Your task to perform on an android device: turn on sleep mode Image 0: 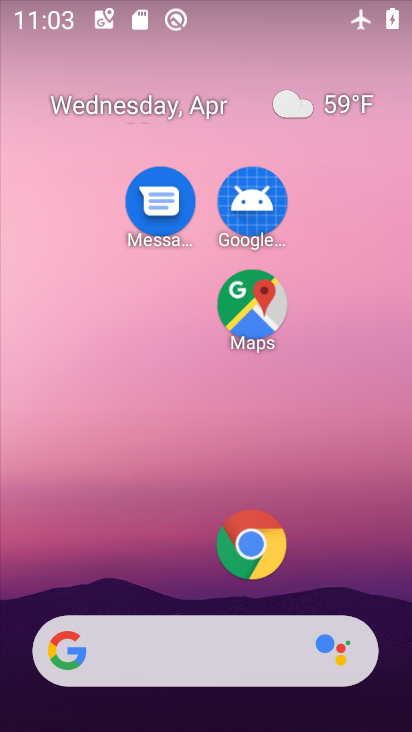
Step 0: drag from (169, 567) to (171, 136)
Your task to perform on an android device: turn on sleep mode Image 1: 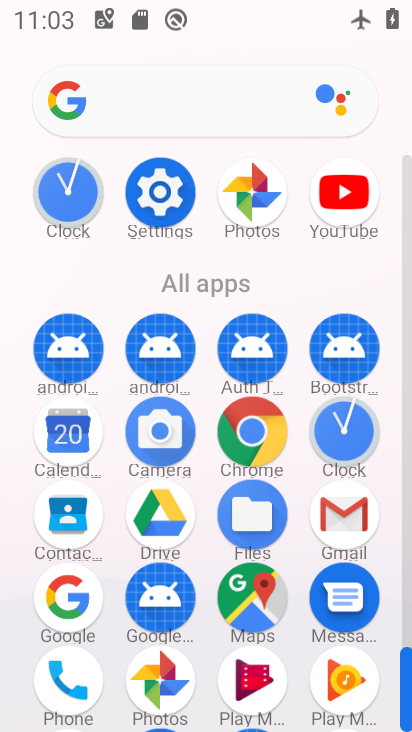
Step 1: click (179, 183)
Your task to perform on an android device: turn on sleep mode Image 2: 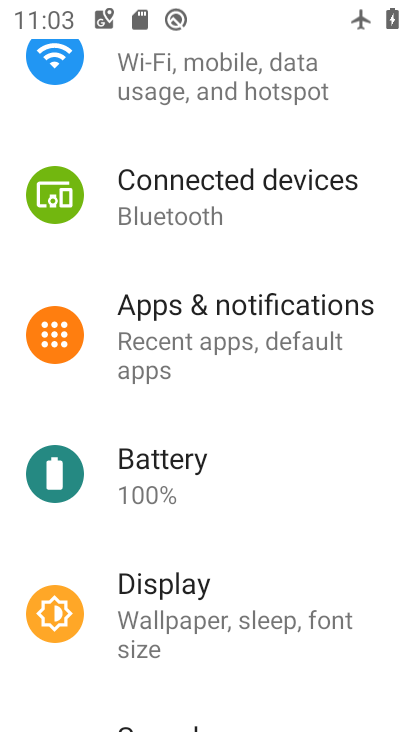
Step 2: click (201, 606)
Your task to perform on an android device: turn on sleep mode Image 3: 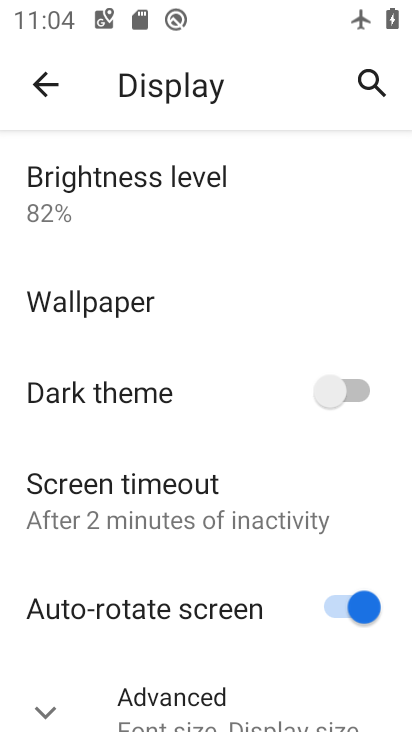
Step 3: click (152, 516)
Your task to perform on an android device: turn on sleep mode Image 4: 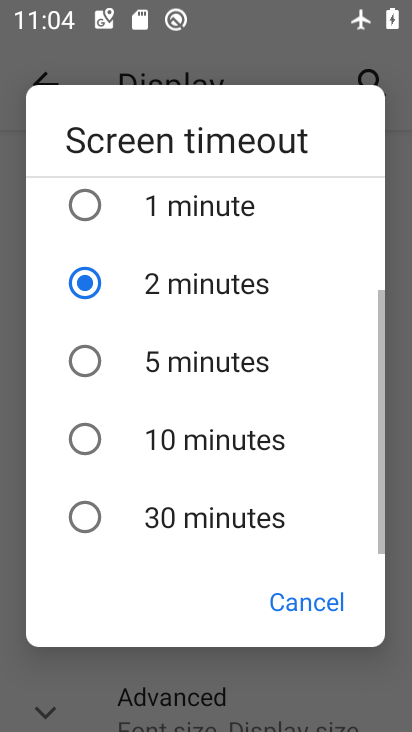
Step 4: click (201, 444)
Your task to perform on an android device: turn on sleep mode Image 5: 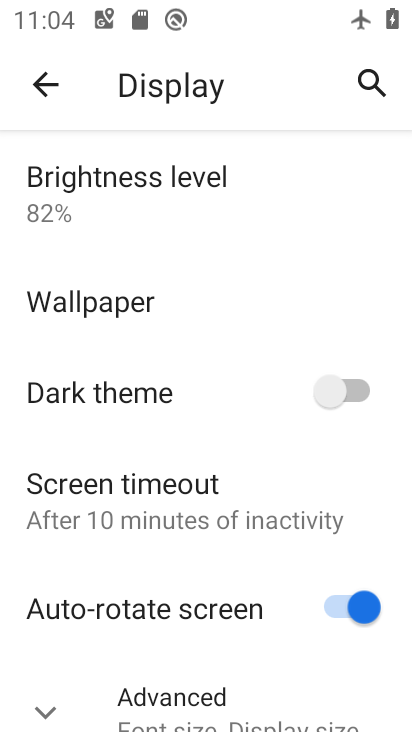
Step 5: task complete